Your task to perform on an android device: Open Google Maps and go to "Timeline" Image 0: 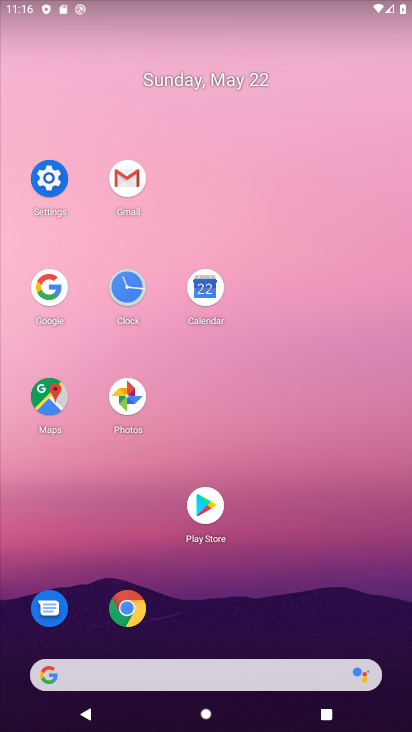
Step 0: click (52, 373)
Your task to perform on an android device: Open Google Maps and go to "Timeline" Image 1: 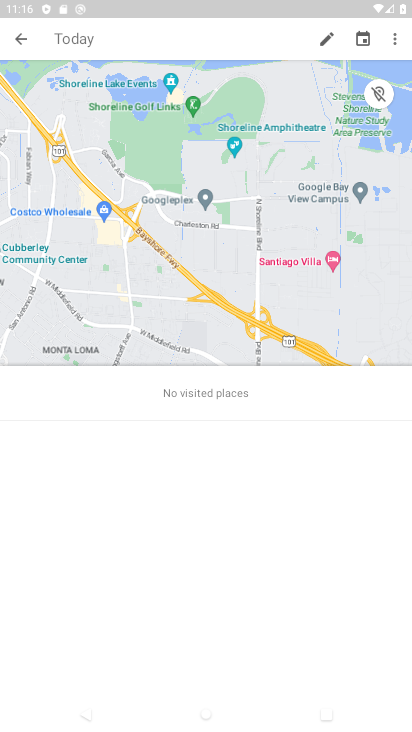
Step 1: task complete